Your task to perform on an android device: Open the stopwatch Image 0: 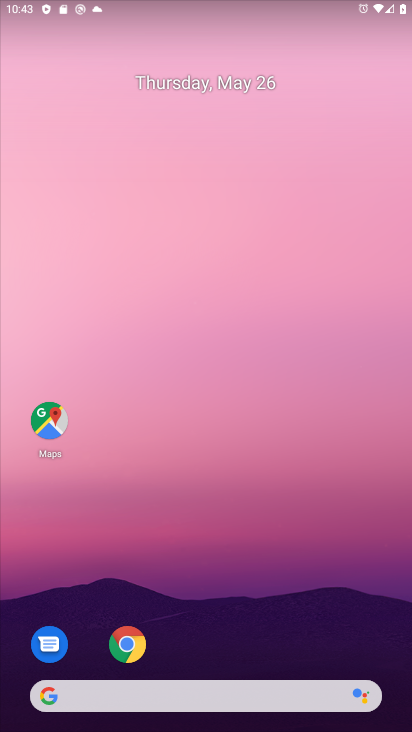
Step 0: drag from (216, 617) to (189, 218)
Your task to perform on an android device: Open the stopwatch Image 1: 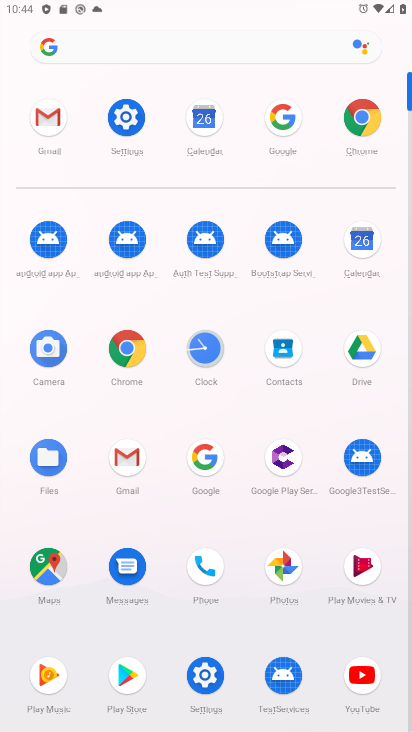
Step 1: click (199, 352)
Your task to perform on an android device: Open the stopwatch Image 2: 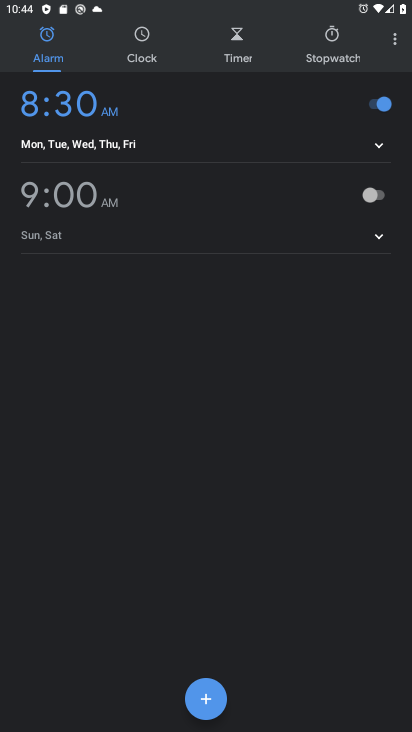
Step 2: click (329, 50)
Your task to perform on an android device: Open the stopwatch Image 3: 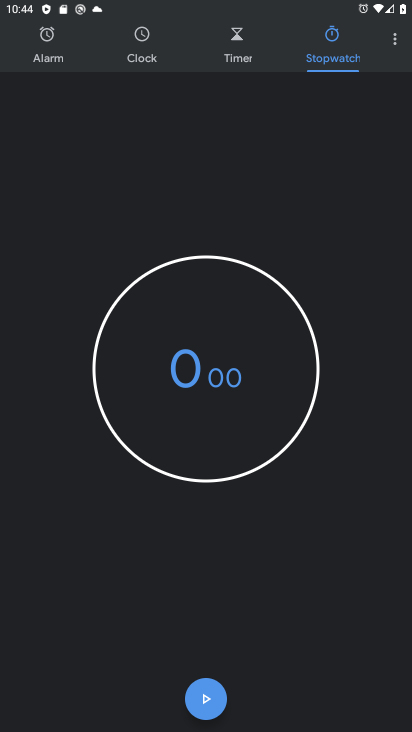
Step 3: task complete